Your task to perform on an android device: Open eBay Image 0: 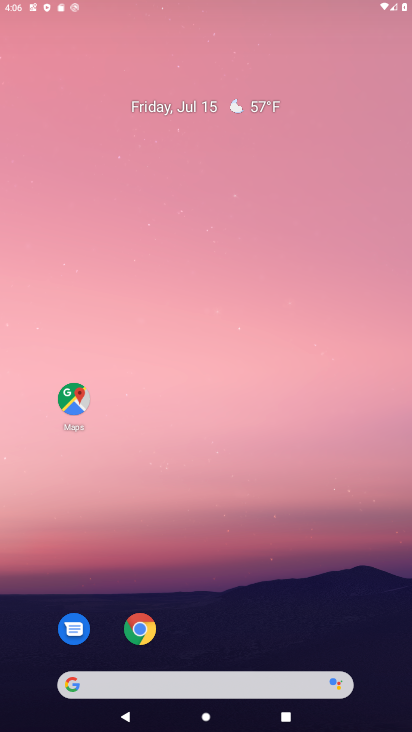
Step 0: press home button
Your task to perform on an android device: Open eBay Image 1: 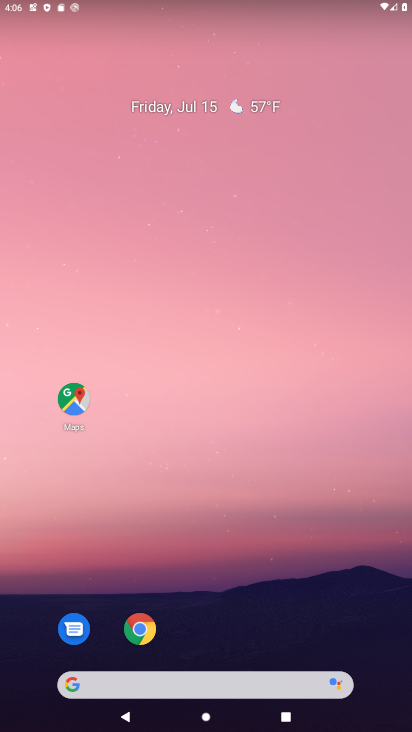
Step 1: click (73, 682)
Your task to perform on an android device: Open eBay Image 2: 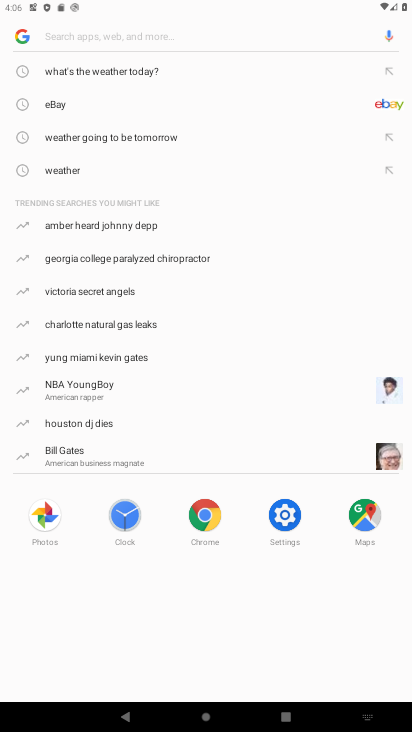
Step 2: click (392, 104)
Your task to perform on an android device: Open eBay Image 3: 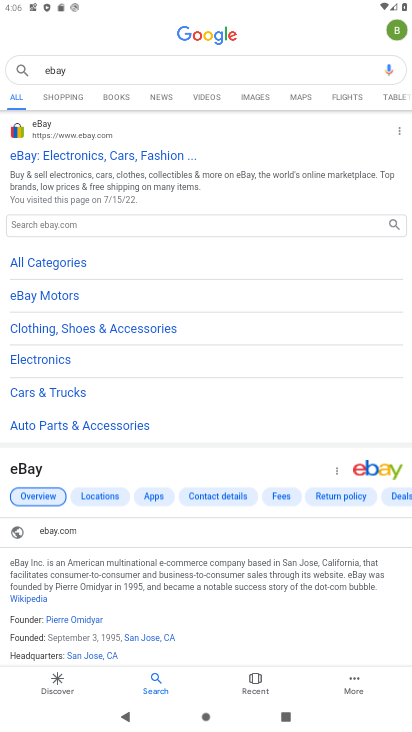
Step 3: click (31, 127)
Your task to perform on an android device: Open eBay Image 4: 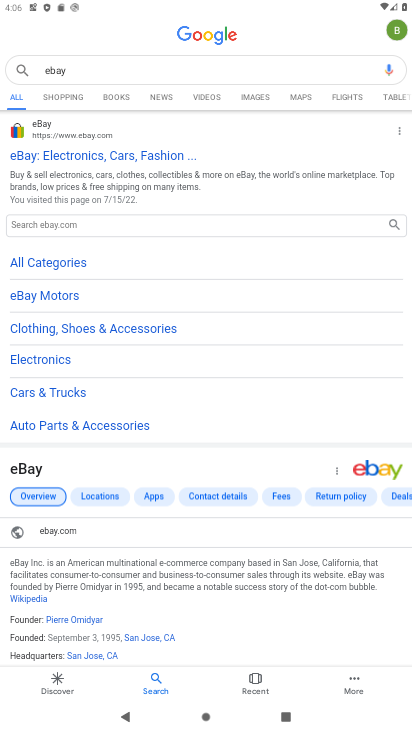
Step 4: click (18, 127)
Your task to perform on an android device: Open eBay Image 5: 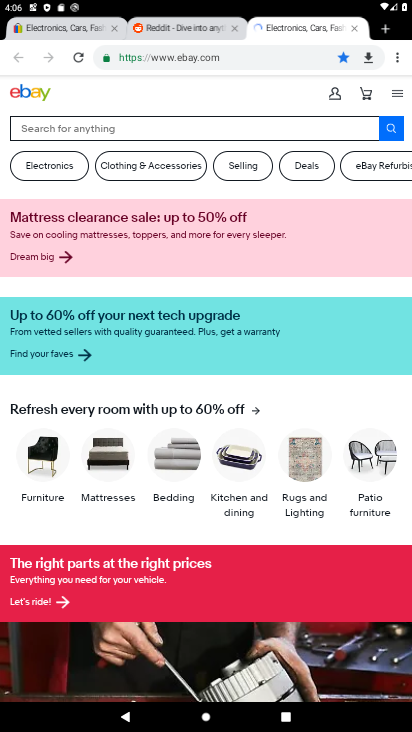
Step 5: task complete